Your task to perform on an android device: Open Chrome and go to the settings page Image 0: 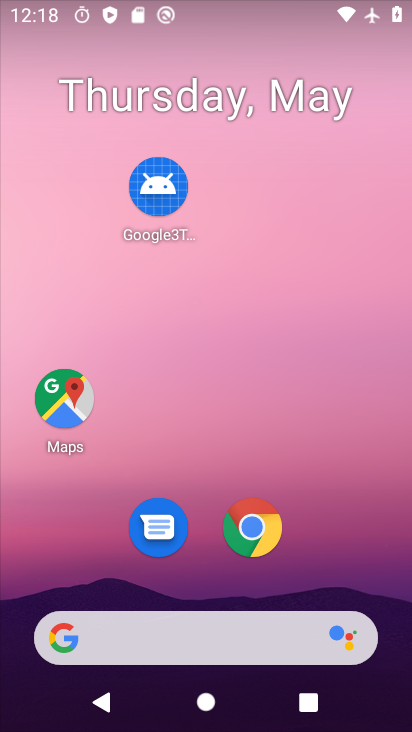
Step 0: drag from (201, 588) to (215, 45)
Your task to perform on an android device: Open Chrome and go to the settings page Image 1: 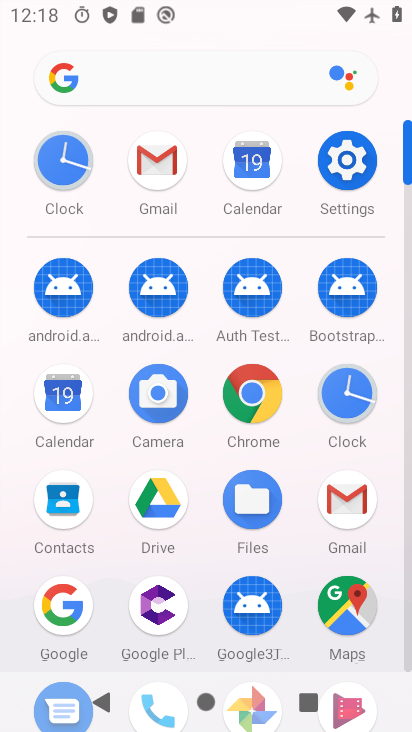
Step 1: click (254, 388)
Your task to perform on an android device: Open Chrome and go to the settings page Image 2: 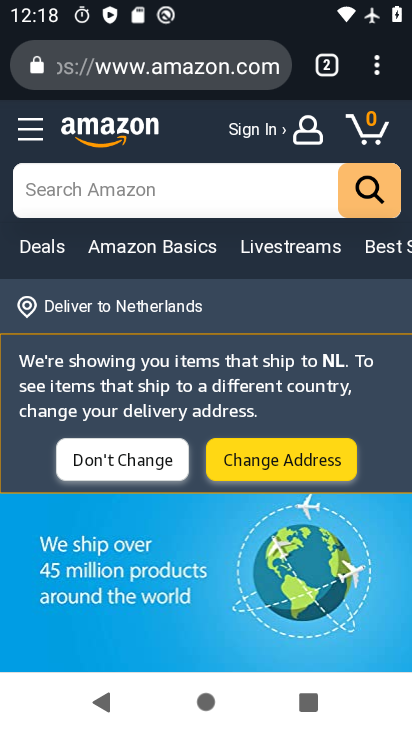
Step 2: click (370, 65)
Your task to perform on an android device: Open Chrome and go to the settings page Image 3: 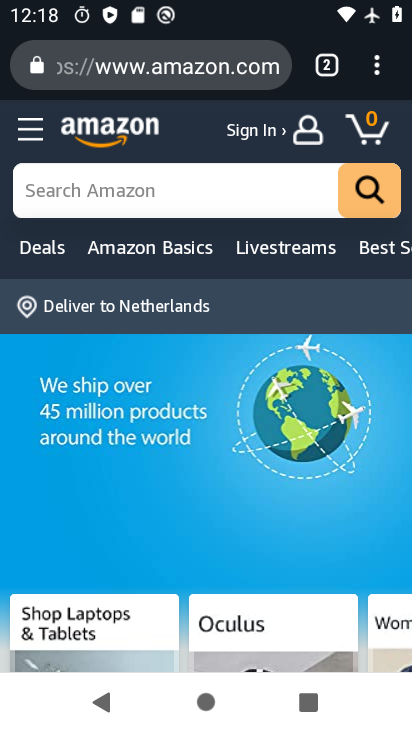
Step 3: click (375, 63)
Your task to perform on an android device: Open Chrome and go to the settings page Image 4: 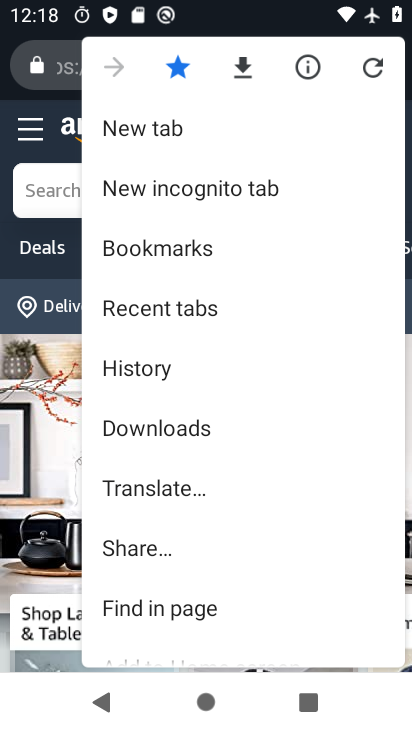
Step 4: drag from (211, 603) to (199, 195)
Your task to perform on an android device: Open Chrome and go to the settings page Image 5: 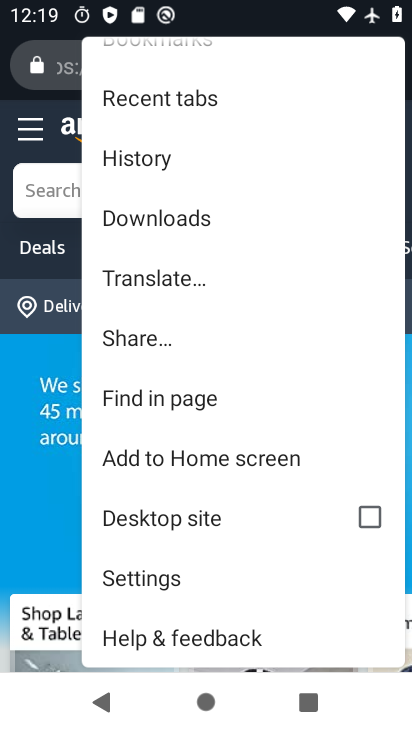
Step 5: click (182, 575)
Your task to perform on an android device: Open Chrome and go to the settings page Image 6: 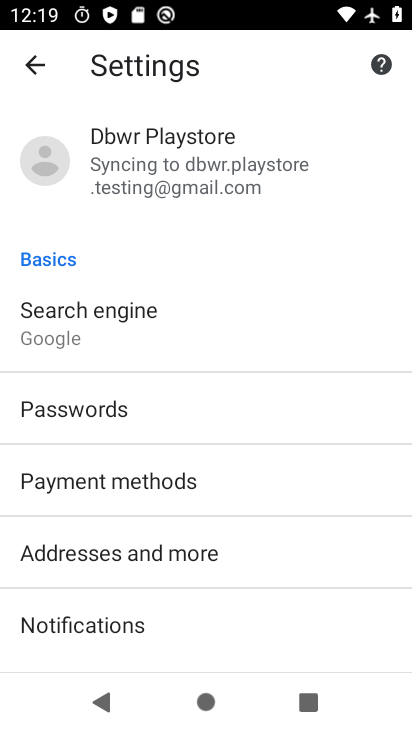
Step 6: drag from (192, 583) to (233, 188)
Your task to perform on an android device: Open Chrome and go to the settings page Image 7: 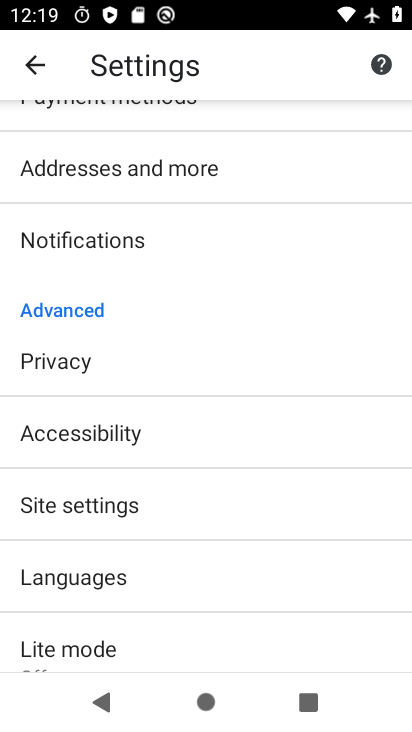
Step 7: drag from (162, 626) to (205, 187)
Your task to perform on an android device: Open Chrome and go to the settings page Image 8: 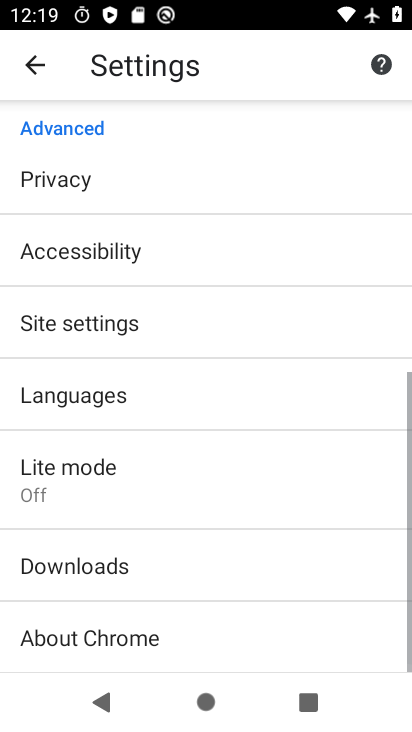
Step 8: click (205, 138)
Your task to perform on an android device: Open Chrome and go to the settings page Image 9: 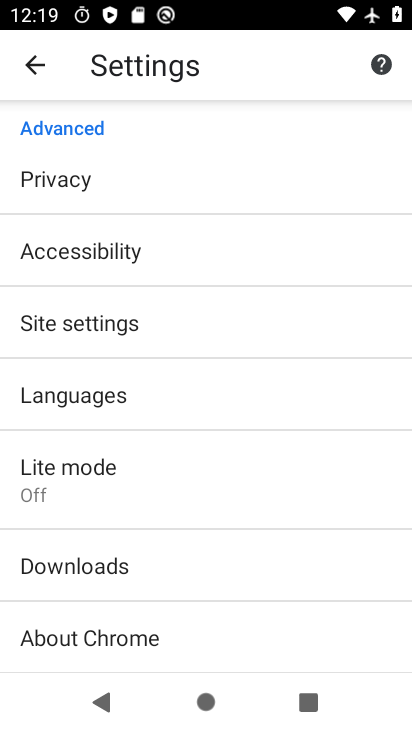
Step 9: task complete